Your task to perform on an android device: toggle show notifications on the lock screen Image 0: 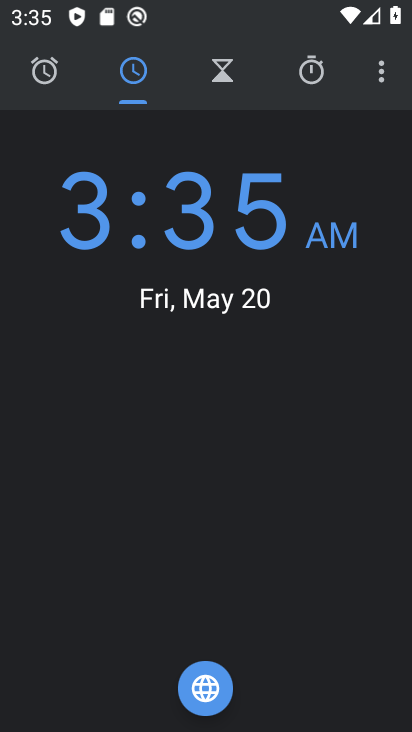
Step 0: press home button
Your task to perform on an android device: toggle show notifications on the lock screen Image 1: 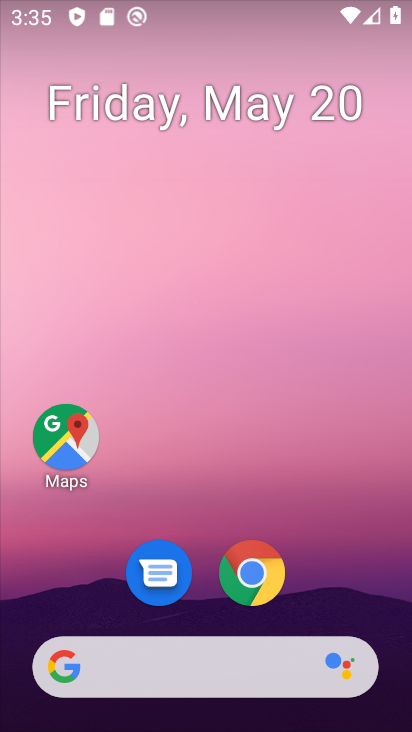
Step 1: drag from (354, 640) to (347, 311)
Your task to perform on an android device: toggle show notifications on the lock screen Image 2: 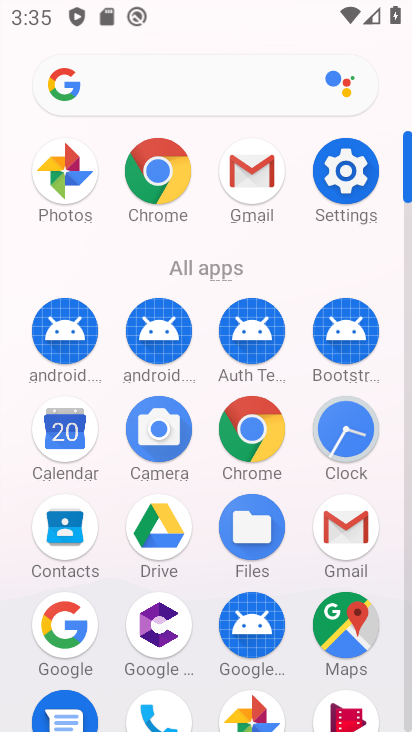
Step 2: click (337, 185)
Your task to perform on an android device: toggle show notifications on the lock screen Image 3: 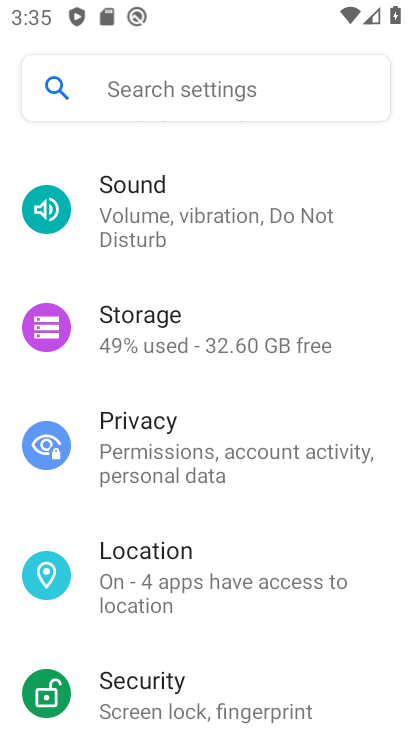
Step 3: drag from (324, 192) to (299, 574)
Your task to perform on an android device: toggle show notifications on the lock screen Image 4: 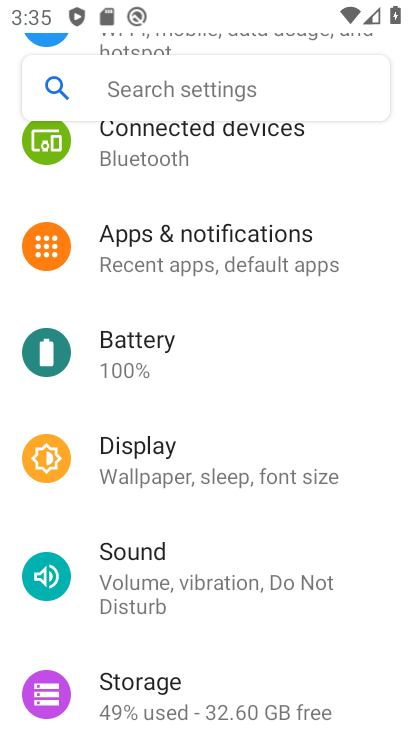
Step 4: click (196, 228)
Your task to perform on an android device: toggle show notifications on the lock screen Image 5: 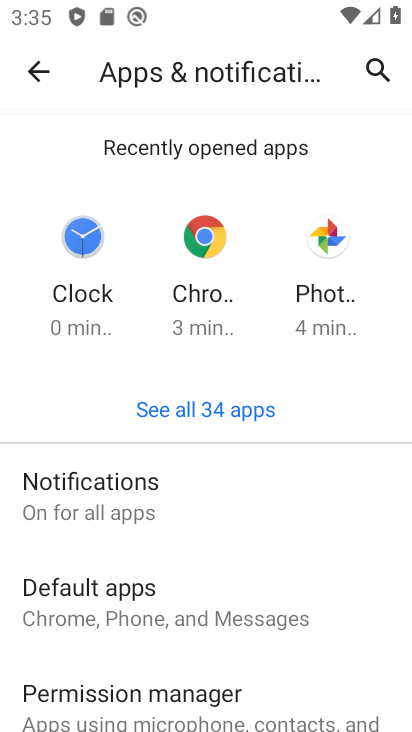
Step 5: click (86, 498)
Your task to perform on an android device: toggle show notifications on the lock screen Image 6: 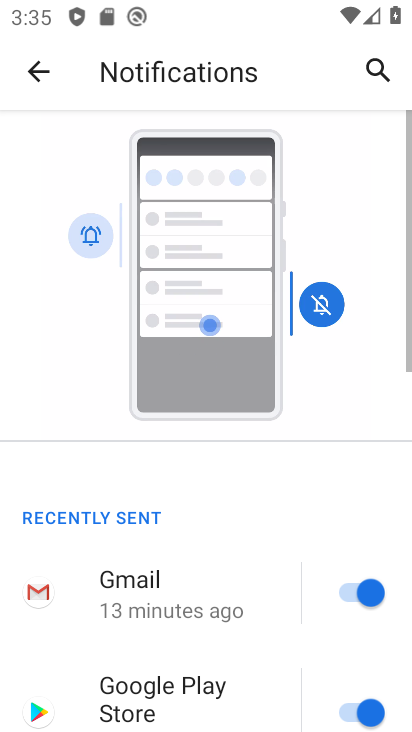
Step 6: drag from (283, 637) to (240, 281)
Your task to perform on an android device: toggle show notifications on the lock screen Image 7: 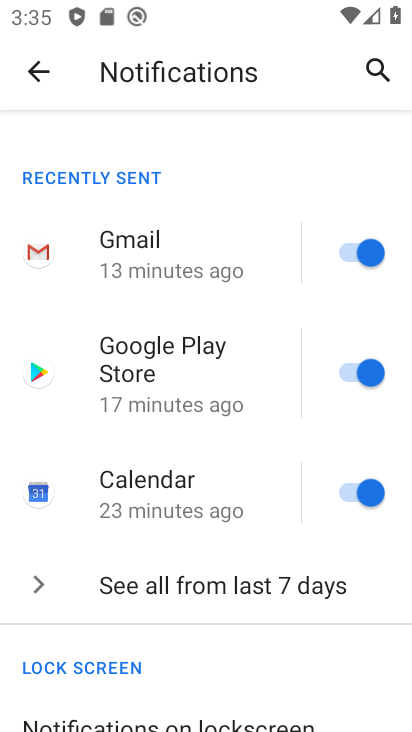
Step 7: drag from (224, 640) to (221, 349)
Your task to perform on an android device: toggle show notifications on the lock screen Image 8: 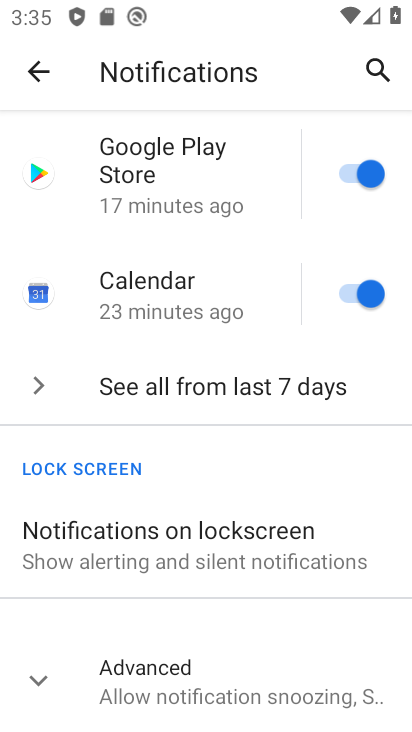
Step 8: click (224, 538)
Your task to perform on an android device: toggle show notifications on the lock screen Image 9: 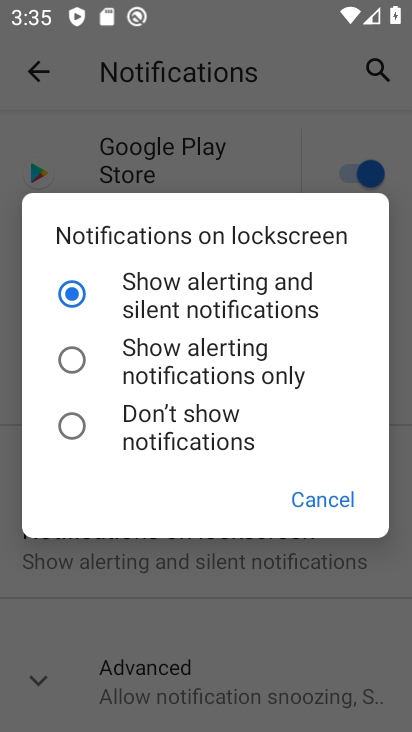
Step 9: click (57, 422)
Your task to perform on an android device: toggle show notifications on the lock screen Image 10: 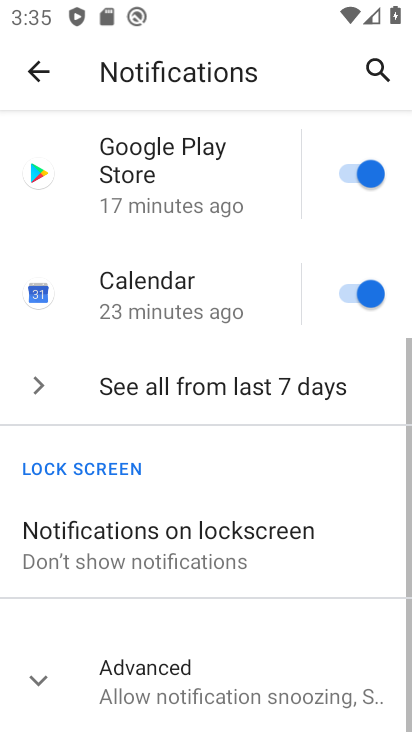
Step 10: task complete